Your task to perform on an android device: Go to privacy settings Image 0: 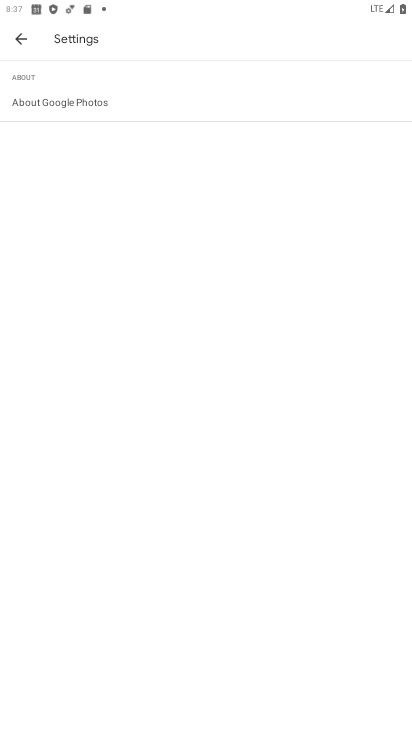
Step 0: press home button
Your task to perform on an android device: Go to privacy settings Image 1: 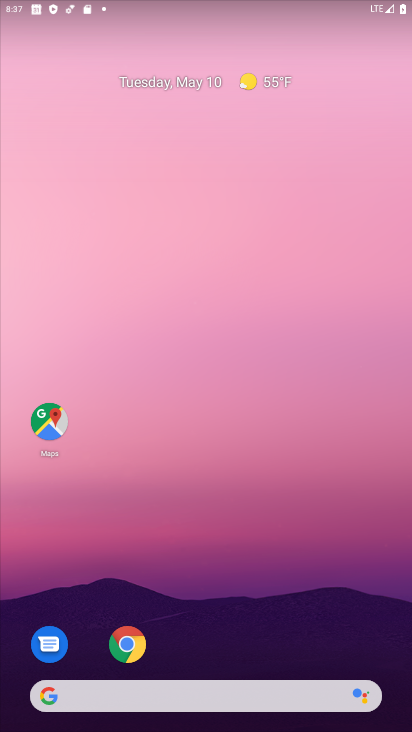
Step 1: drag from (178, 643) to (211, 205)
Your task to perform on an android device: Go to privacy settings Image 2: 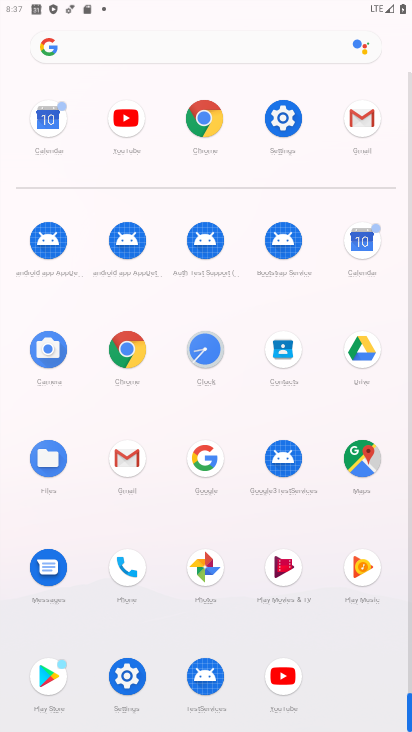
Step 2: click (283, 126)
Your task to perform on an android device: Go to privacy settings Image 3: 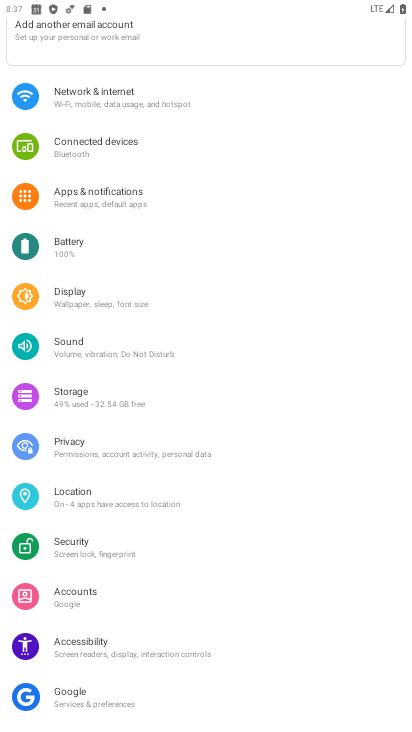
Step 3: click (159, 452)
Your task to perform on an android device: Go to privacy settings Image 4: 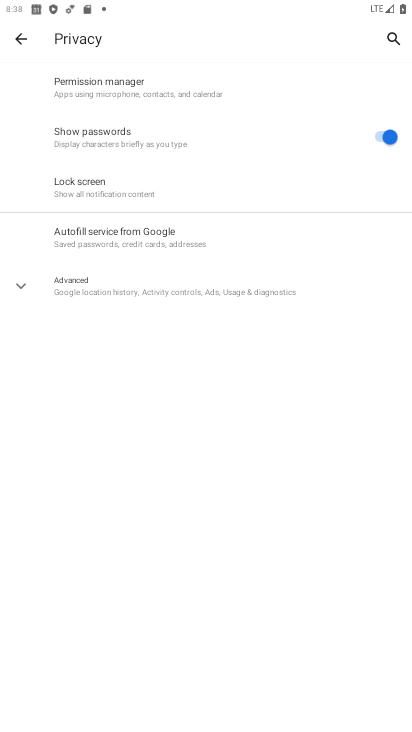
Step 4: task complete